Your task to perform on an android device: Go to accessibility settings Image 0: 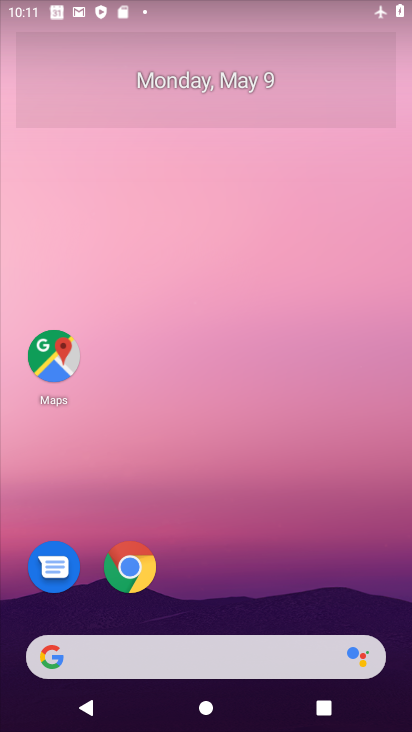
Step 0: drag from (196, 597) to (232, 81)
Your task to perform on an android device: Go to accessibility settings Image 1: 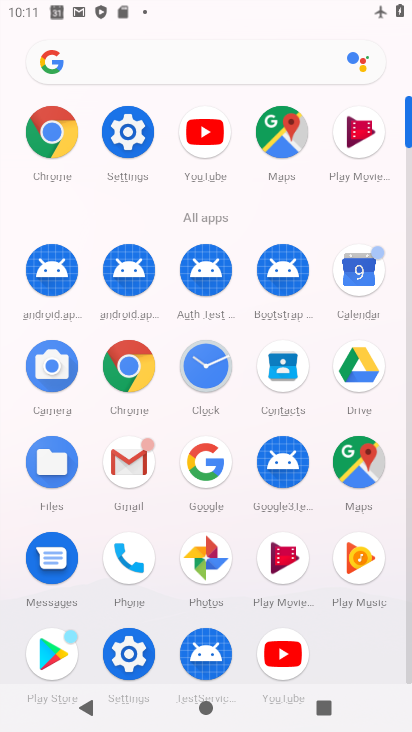
Step 1: click (133, 130)
Your task to perform on an android device: Go to accessibility settings Image 2: 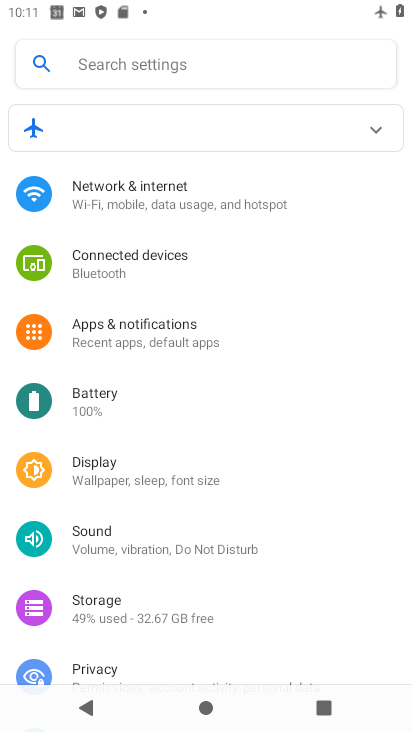
Step 2: drag from (215, 619) to (242, 265)
Your task to perform on an android device: Go to accessibility settings Image 3: 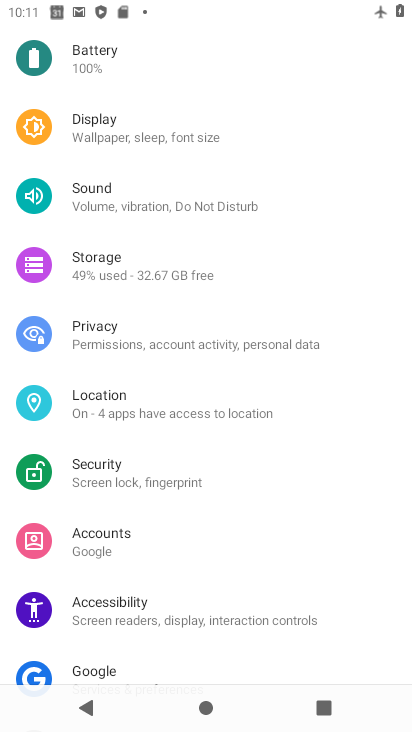
Step 3: click (188, 605)
Your task to perform on an android device: Go to accessibility settings Image 4: 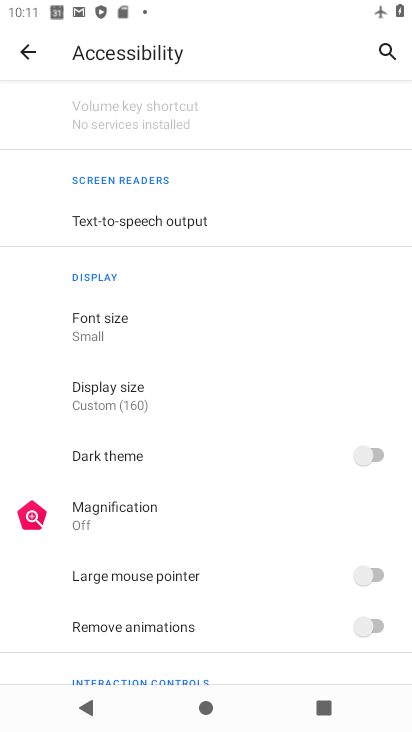
Step 4: task complete